Your task to perform on an android device: turn on improve location accuracy Image 0: 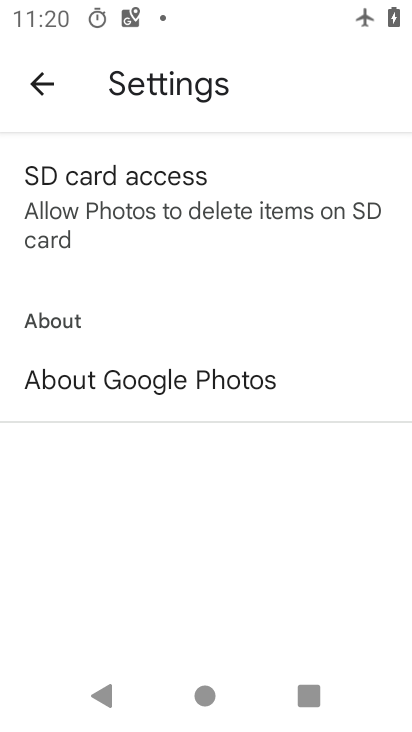
Step 0: press home button
Your task to perform on an android device: turn on improve location accuracy Image 1: 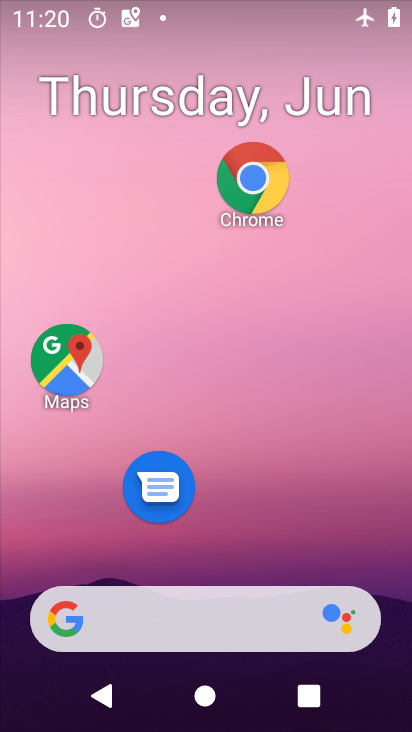
Step 1: drag from (229, 703) to (229, 105)
Your task to perform on an android device: turn on improve location accuracy Image 2: 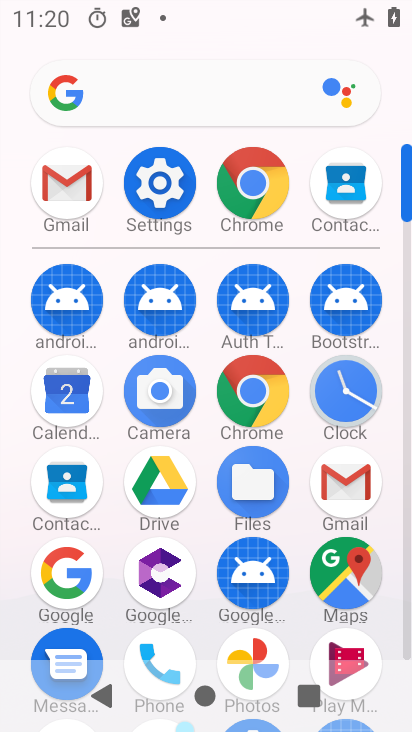
Step 2: click (153, 181)
Your task to perform on an android device: turn on improve location accuracy Image 3: 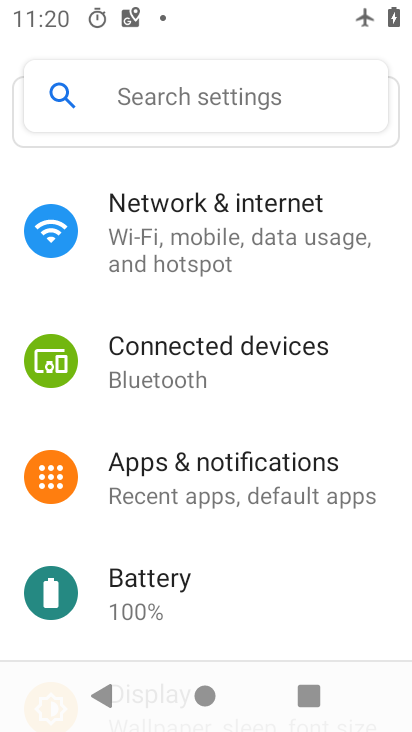
Step 3: drag from (192, 640) to (199, 127)
Your task to perform on an android device: turn on improve location accuracy Image 4: 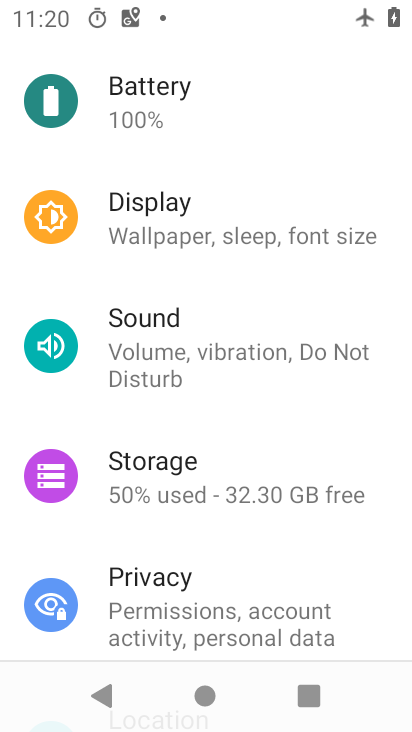
Step 4: drag from (149, 634) to (178, 233)
Your task to perform on an android device: turn on improve location accuracy Image 5: 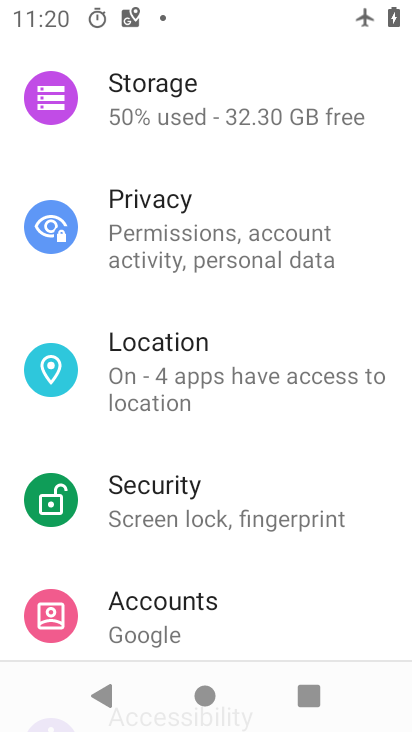
Step 5: click (205, 374)
Your task to perform on an android device: turn on improve location accuracy Image 6: 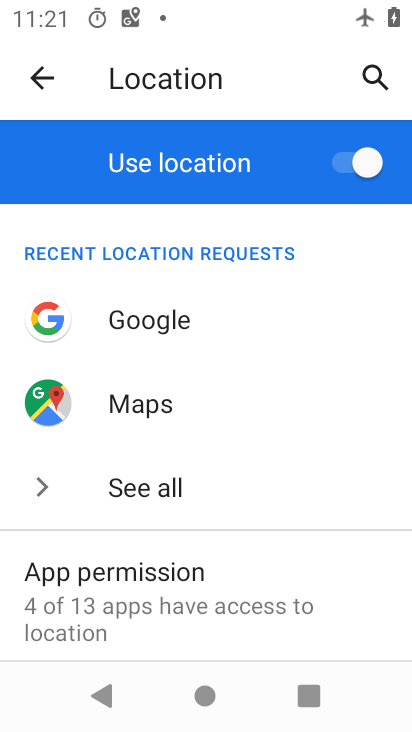
Step 6: drag from (153, 637) to (152, 296)
Your task to perform on an android device: turn on improve location accuracy Image 7: 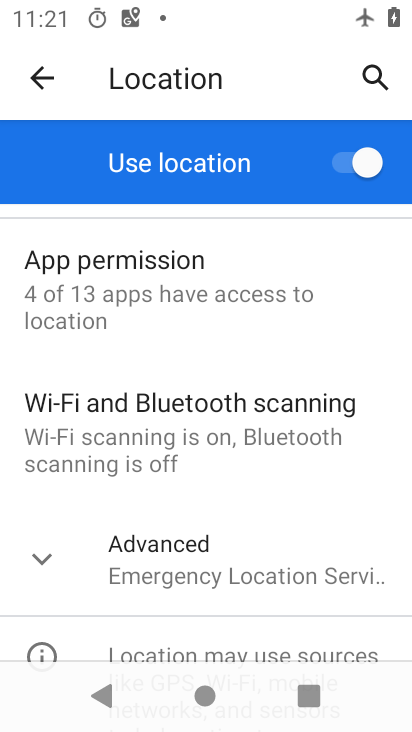
Step 7: click (157, 569)
Your task to perform on an android device: turn on improve location accuracy Image 8: 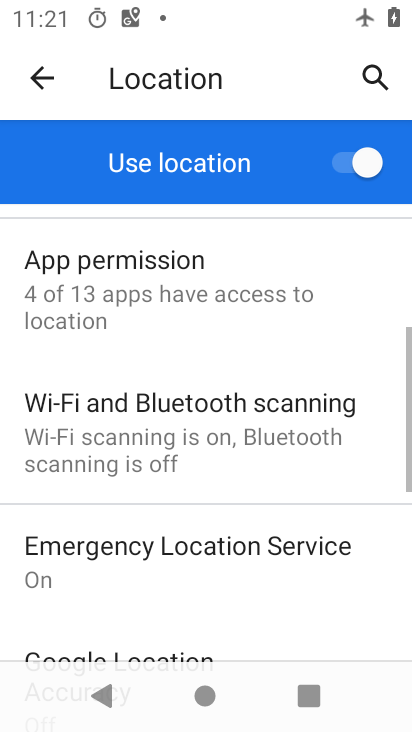
Step 8: drag from (183, 622) to (185, 350)
Your task to perform on an android device: turn on improve location accuracy Image 9: 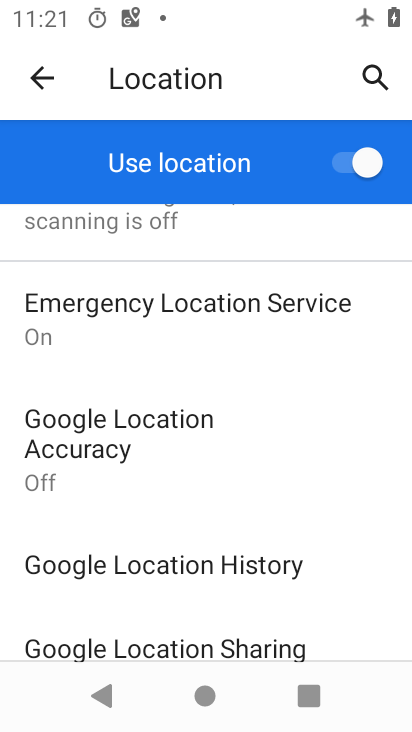
Step 9: click (118, 446)
Your task to perform on an android device: turn on improve location accuracy Image 10: 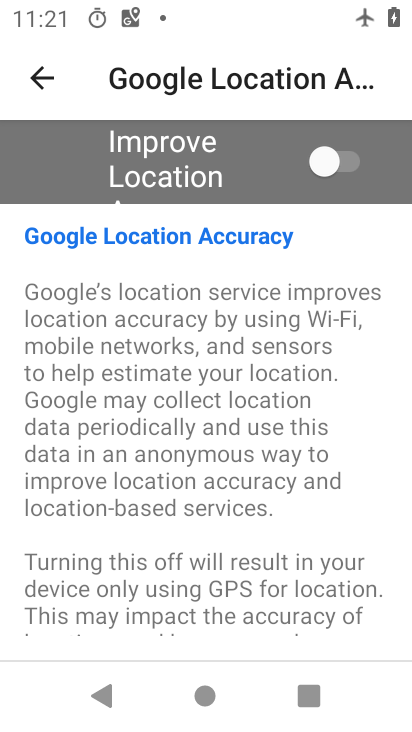
Step 10: click (342, 157)
Your task to perform on an android device: turn on improve location accuracy Image 11: 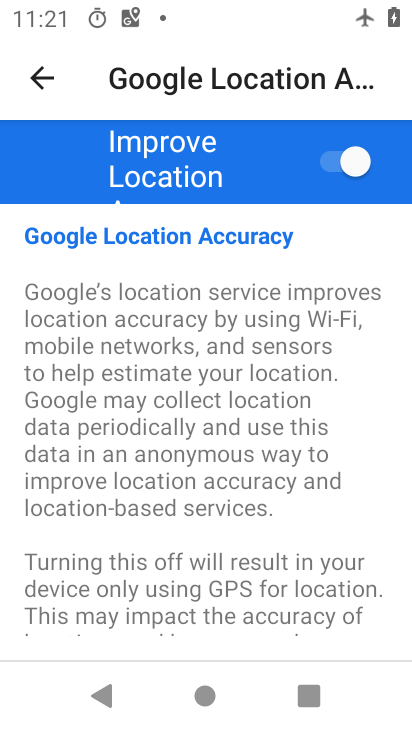
Step 11: task complete